Your task to perform on an android device: Open Reddit.com Image 0: 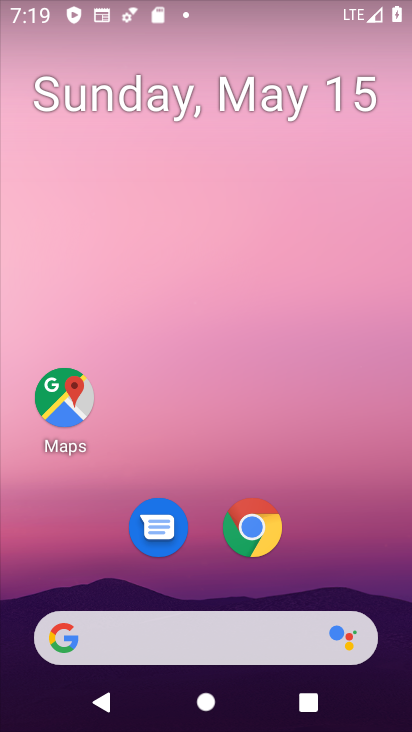
Step 0: drag from (369, 438) to (371, 44)
Your task to perform on an android device: Open Reddit.com Image 1: 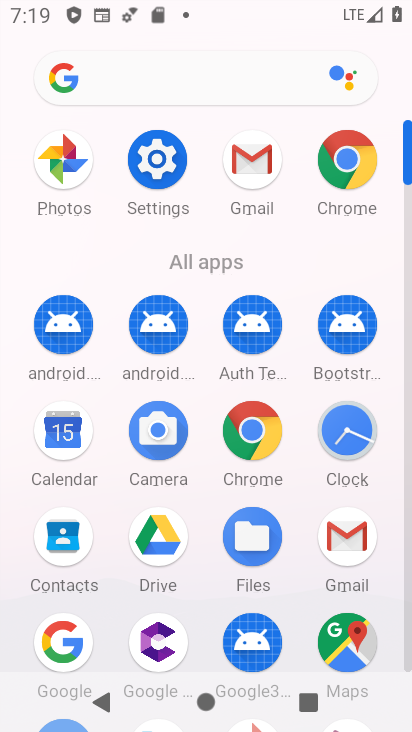
Step 1: click (368, 170)
Your task to perform on an android device: Open Reddit.com Image 2: 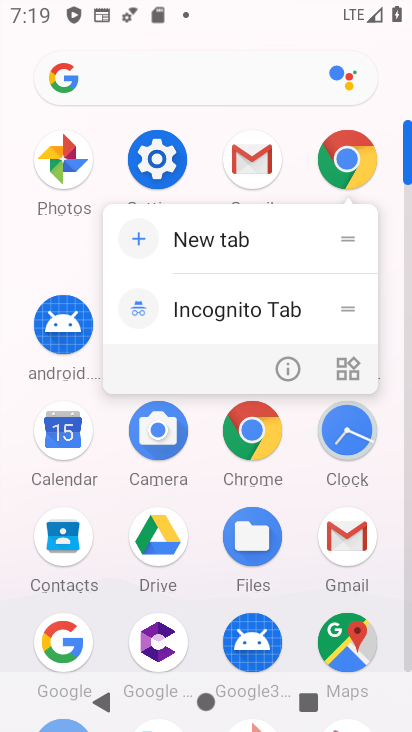
Step 2: click (368, 170)
Your task to perform on an android device: Open Reddit.com Image 3: 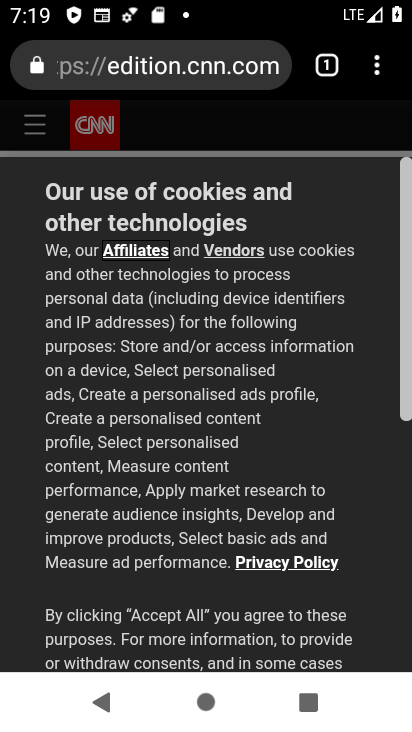
Step 3: click (142, 66)
Your task to perform on an android device: Open Reddit.com Image 4: 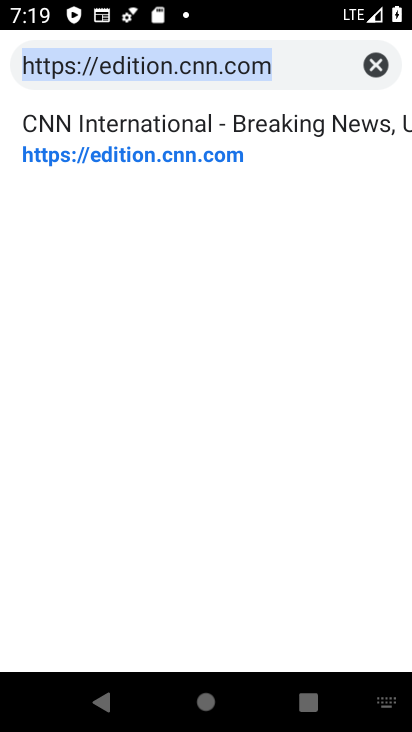
Step 4: click (384, 68)
Your task to perform on an android device: Open Reddit.com Image 5: 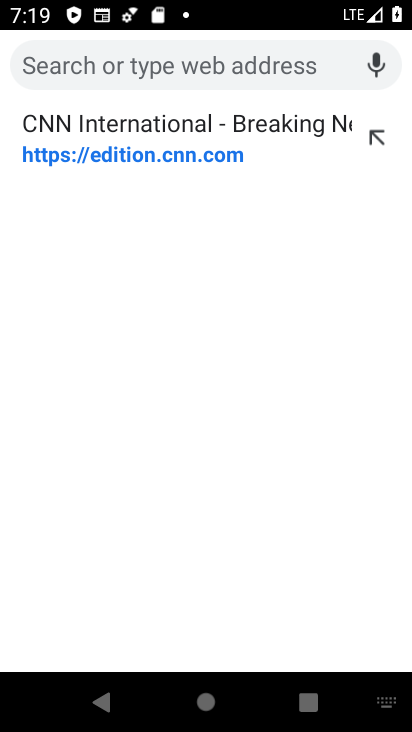
Step 5: type "reddit.com"
Your task to perform on an android device: Open Reddit.com Image 6: 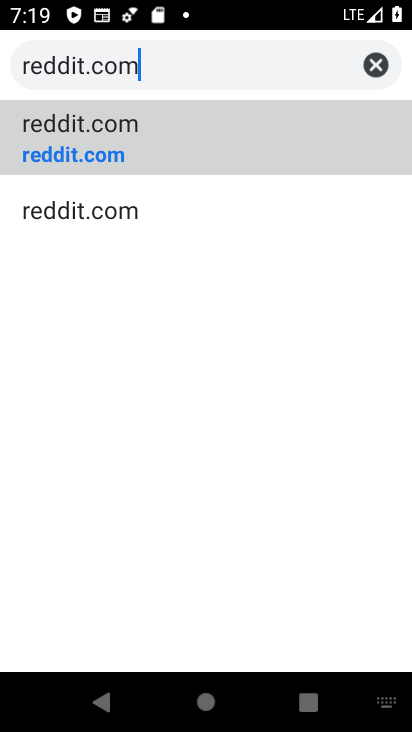
Step 6: click (105, 148)
Your task to perform on an android device: Open Reddit.com Image 7: 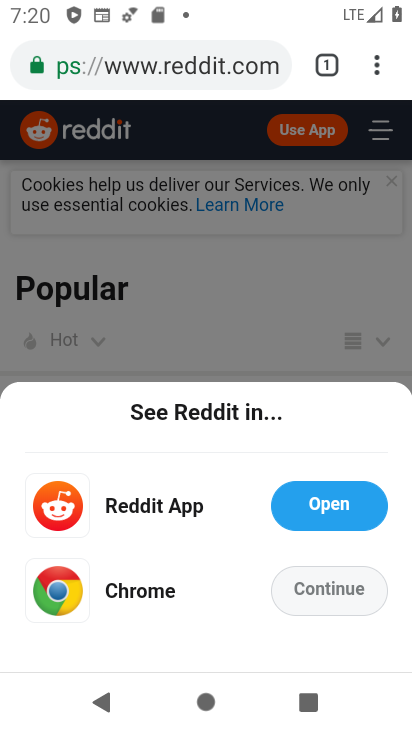
Step 7: task complete